Your task to perform on an android device: Open display settings Image 0: 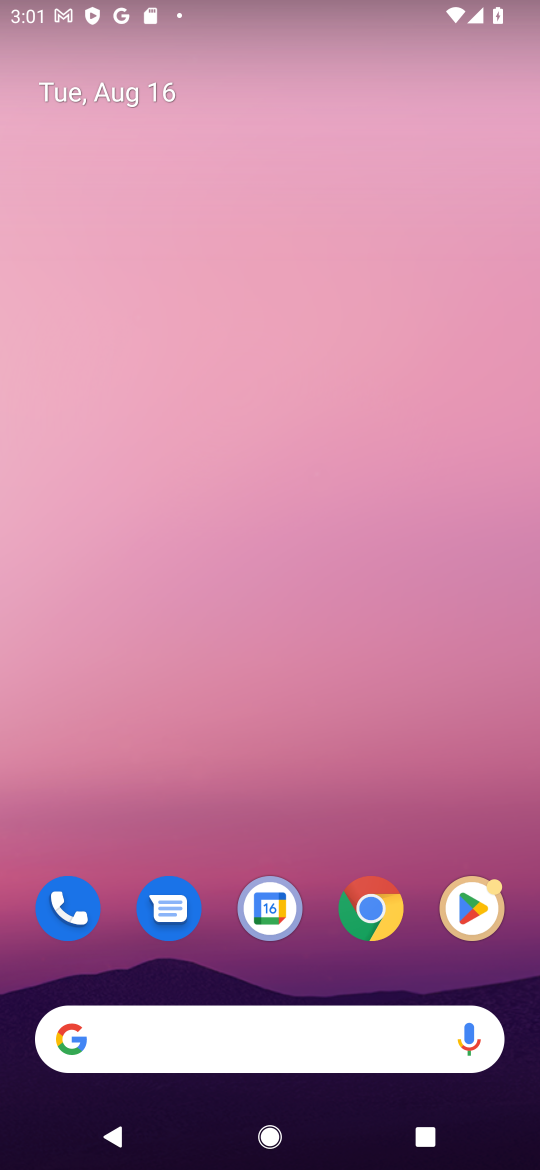
Step 0: drag from (241, 988) to (396, 60)
Your task to perform on an android device: Open display settings Image 1: 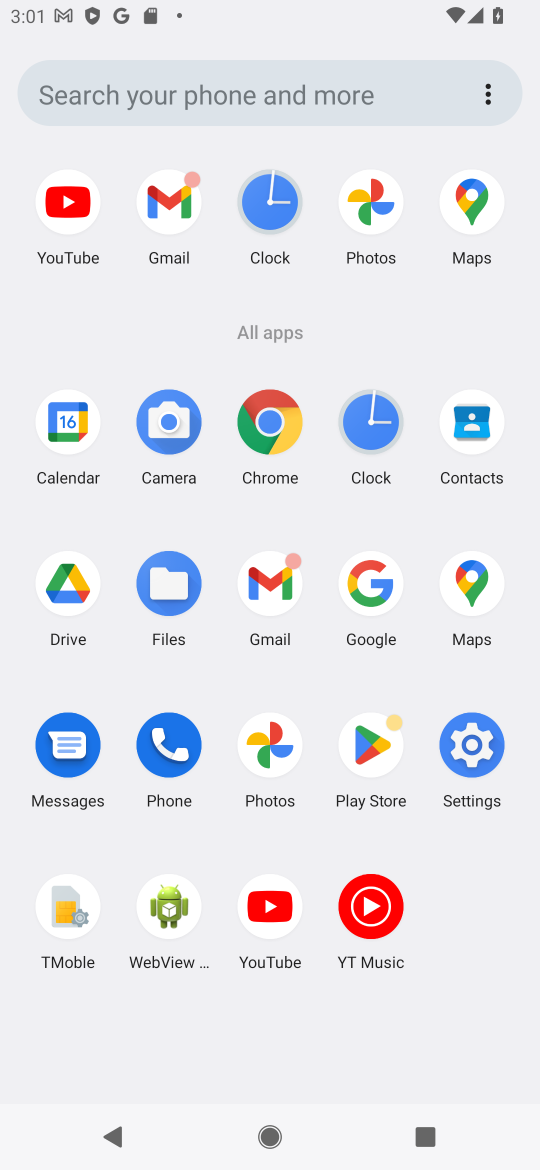
Step 1: click (466, 758)
Your task to perform on an android device: Open display settings Image 2: 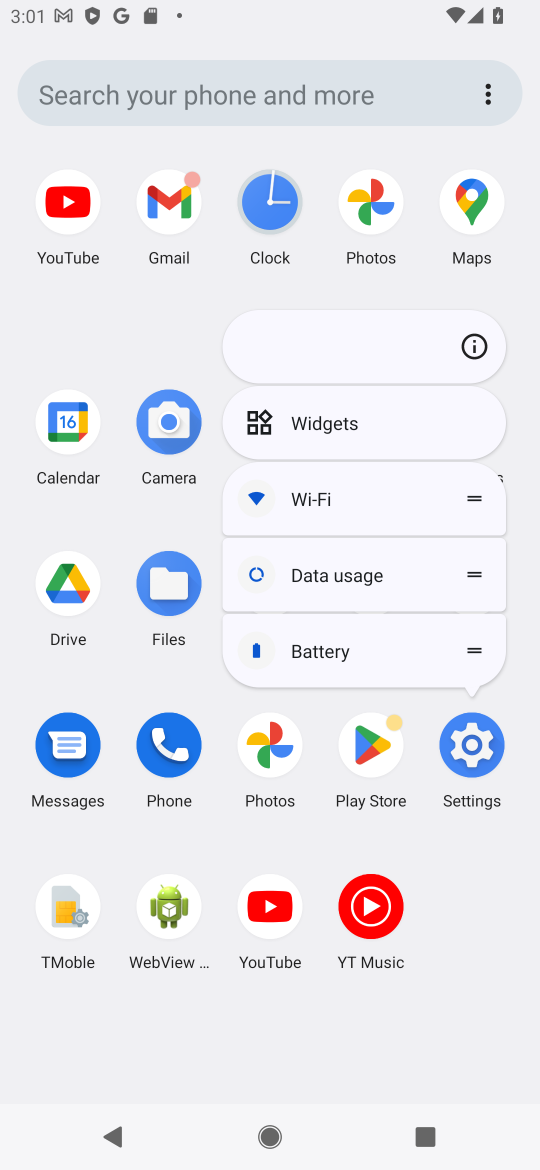
Step 2: click (482, 758)
Your task to perform on an android device: Open display settings Image 3: 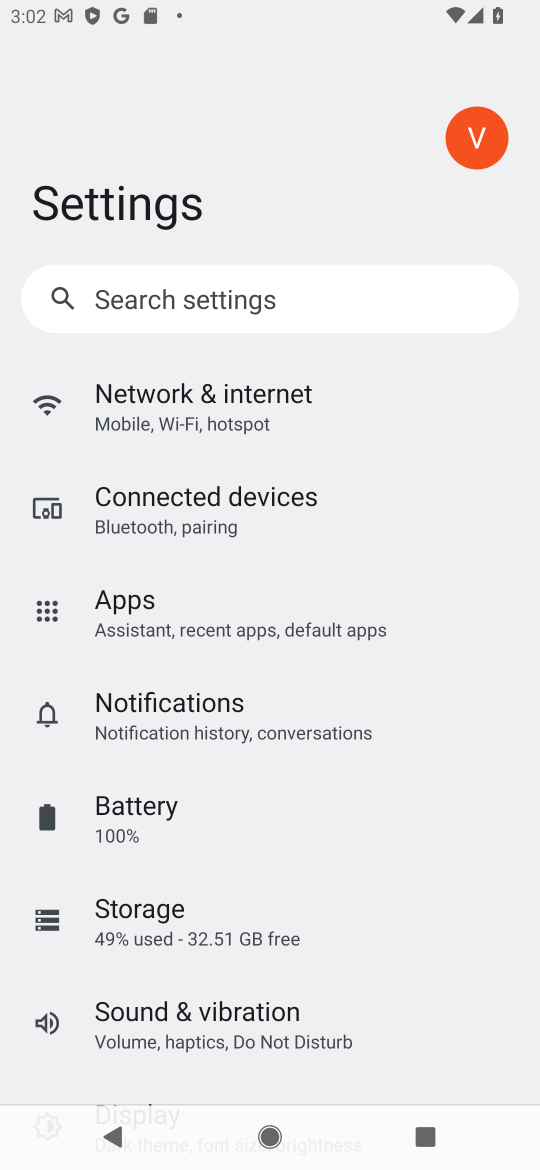
Step 3: drag from (225, 966) to (386, 443)
Your task to perform on an android device: Open display settings Image 4: 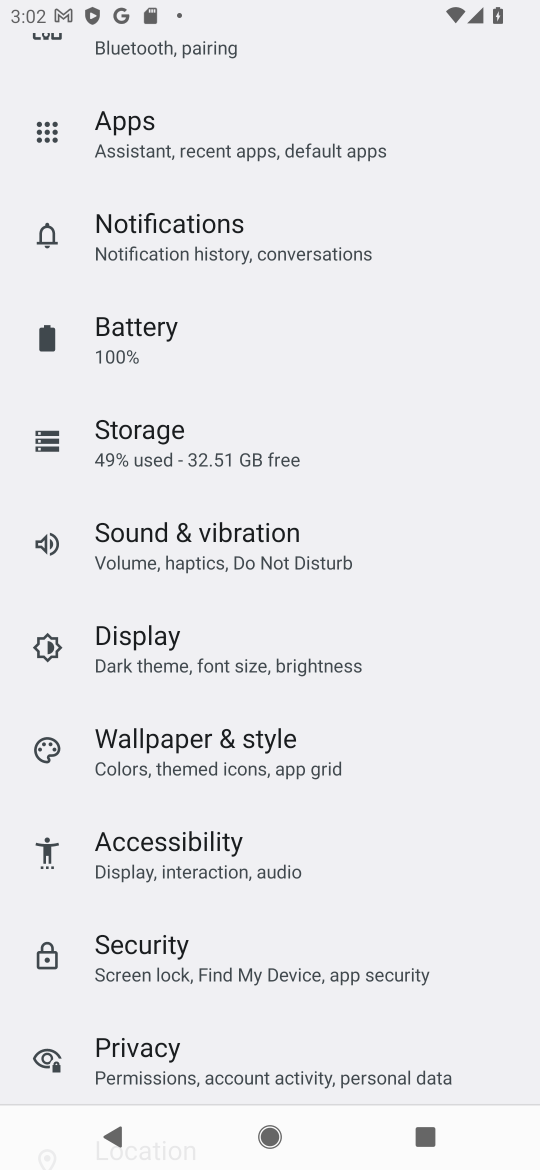
Step 4: click (186, 652)
Your task to perform on an android device: Open display settings Image 5: 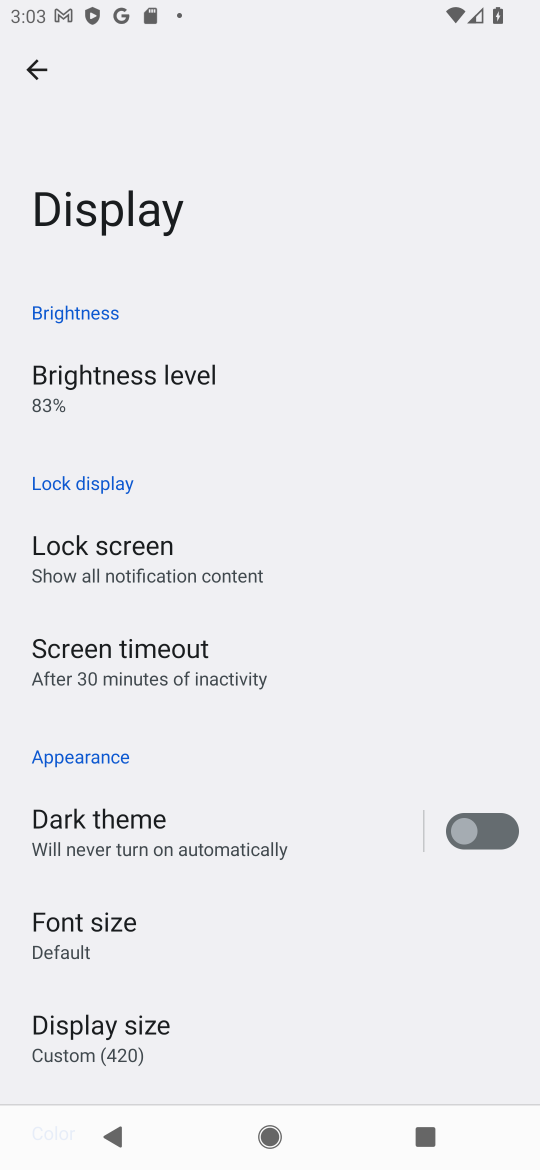
Step 5: task complete